Your task to perform on an android device: change your default location settings in chrome Image 0: 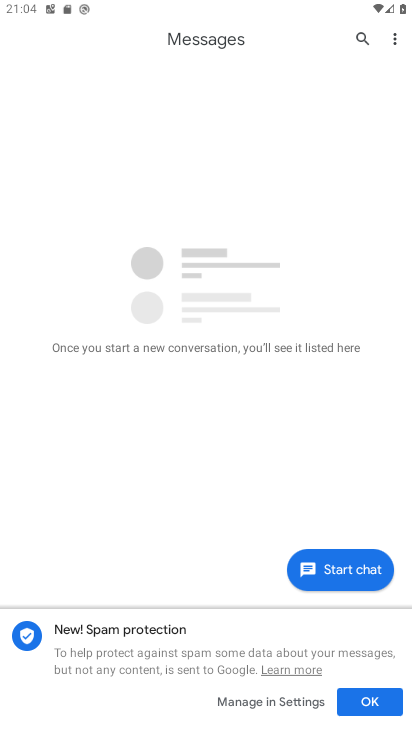
Step 0: press home button
Your task to perform on an android device: change your default location settings in chrome Image 1: 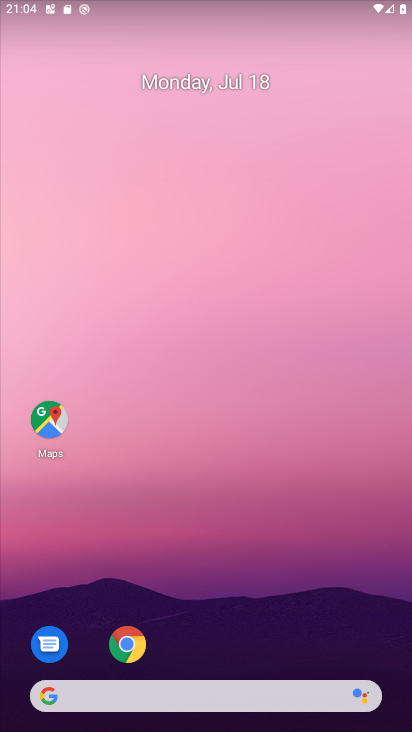
Step 1: click (123, 652)
Your task to perform on an android device: change your default location settings in chrome Image 2: 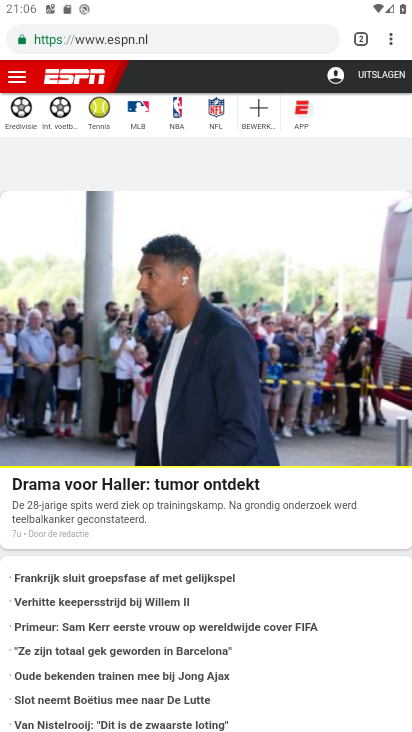
Step 2: task complete